Your task to perform on an android device: turn on sleep mode Image 0: 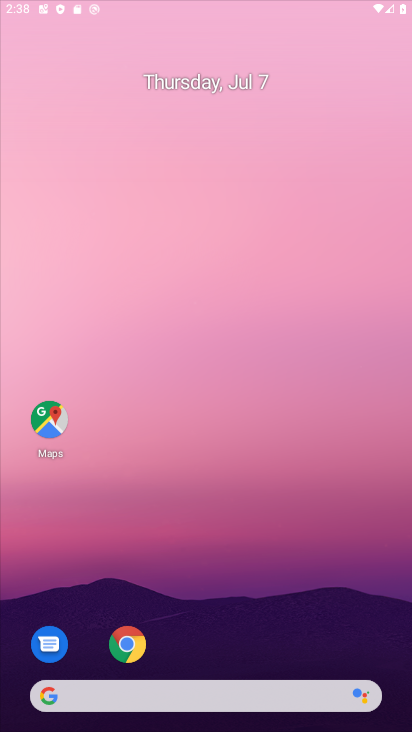
Step 0: press home button
Your task to perform on an android device: turn on sleep mode Image 1: 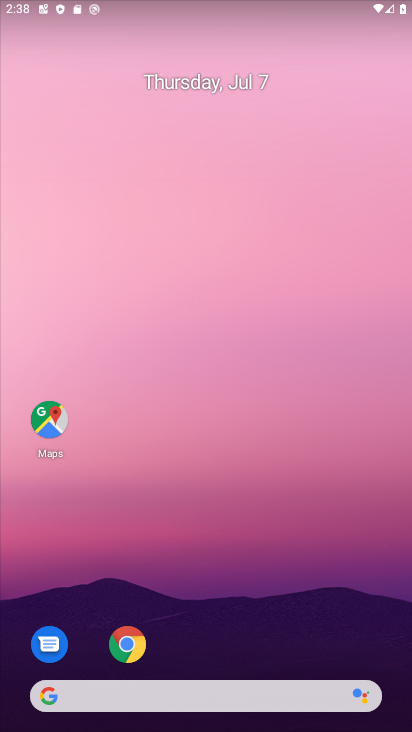
Step 1: drag from (272, 643) to (284, 124)
Your task to perform on an android device: turn on sleep mode Image 2: 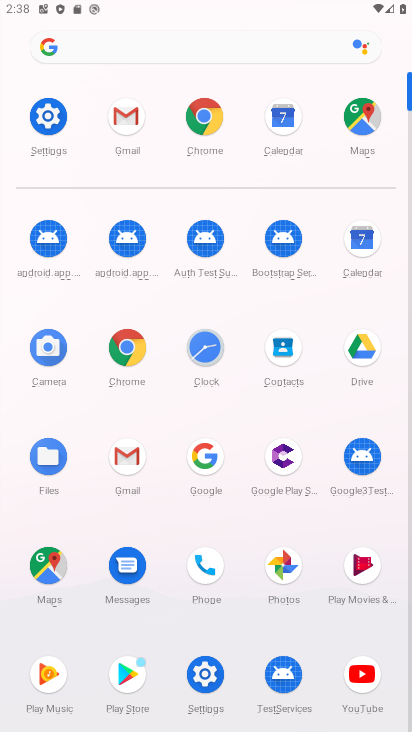
Step 2: click (46, 113)
Your task to perform on an android device: turn on sleep mode Image 3: 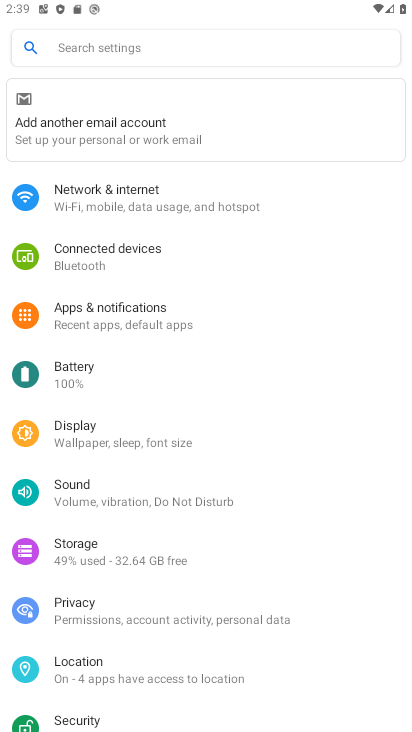
Step 3: click (78, 427)
Your task to perform on an android device: turn on sleep mode Image 4: 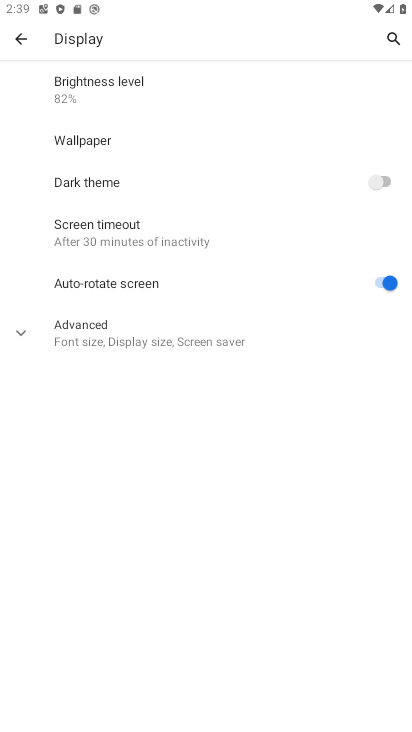
Step 4: task complete